Your task to perform on an android device: snooze an email in the gmail app Image 0: 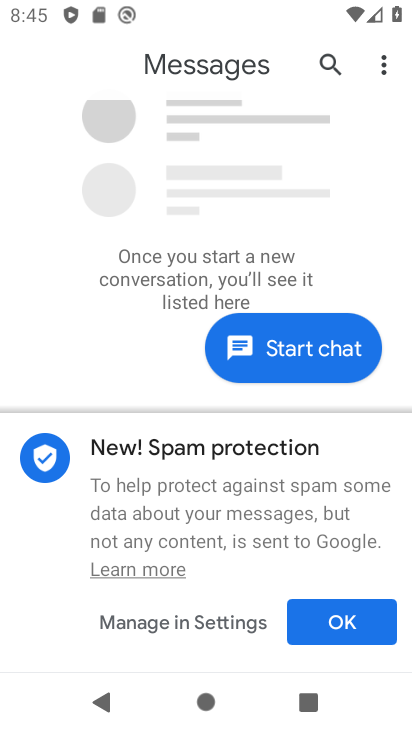
Step 0: press home button
Your task to perform on an android device: snooze an email in the gmail app Image 1: 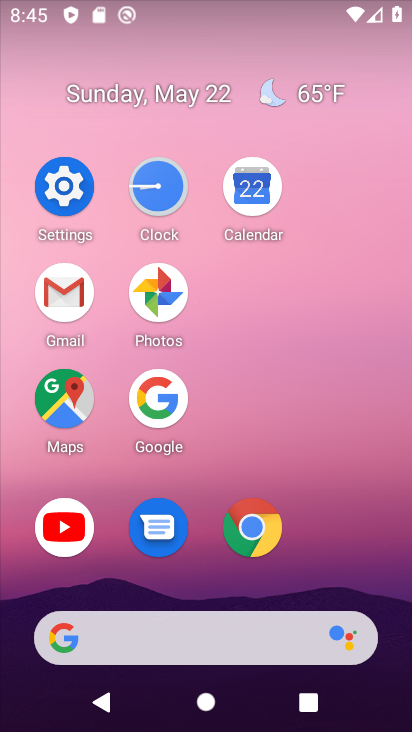
Step 1: click (80, 301)
Your task to perform on an android device: snooze an email in the gmail app Image 2: 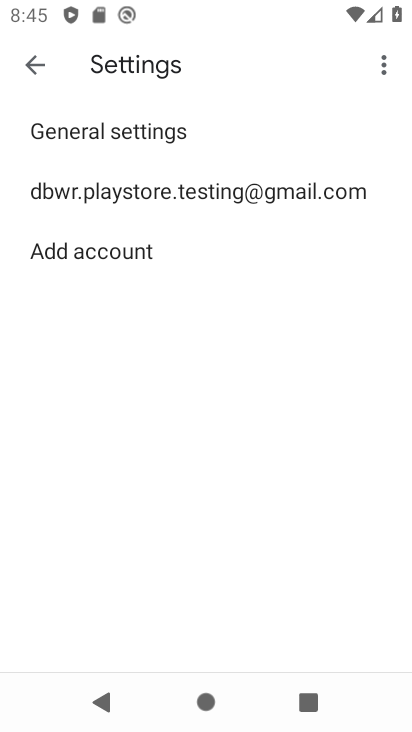
Step 2: click (47, 68)
Your task to perform on an android device: snooze an email in the gmail app Image 3: 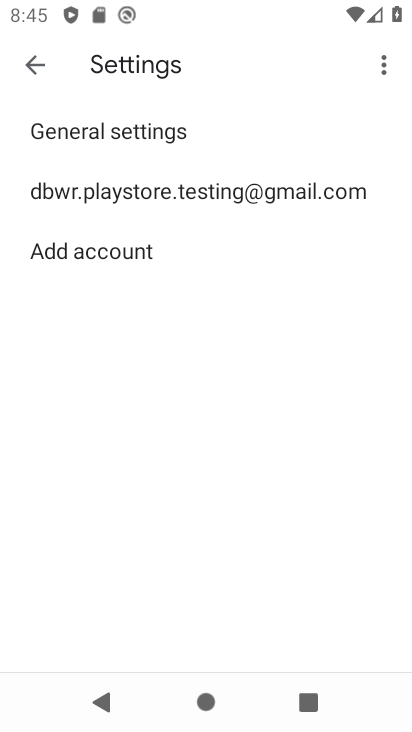
Step 3: click (37, 63)
Your task to perform on an android device: snooze an email in the gmail app Image 4: 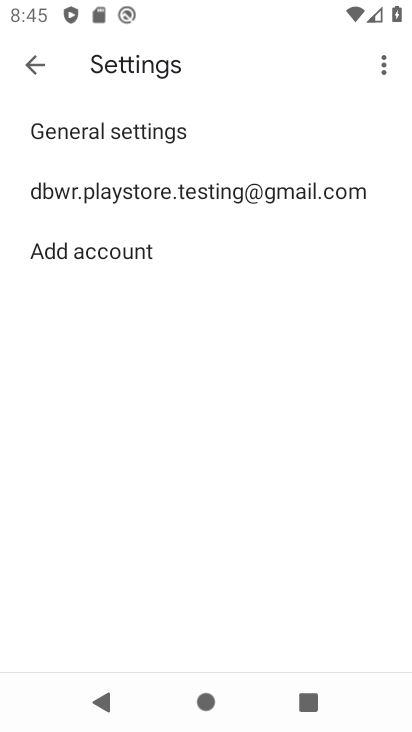
Step 4: click (35, 80)
Your task to perform on an android device: snooze an email in the gmail app Image 5: 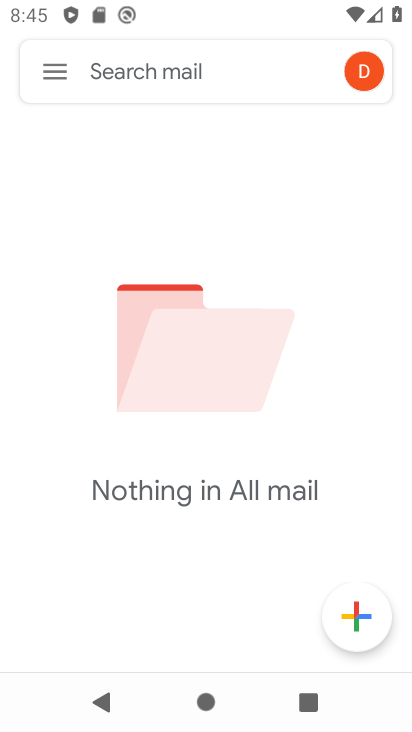
Step 5: click (35, 80)
Your task to perform on an android device: snooze an email in the gmail app Image 6: 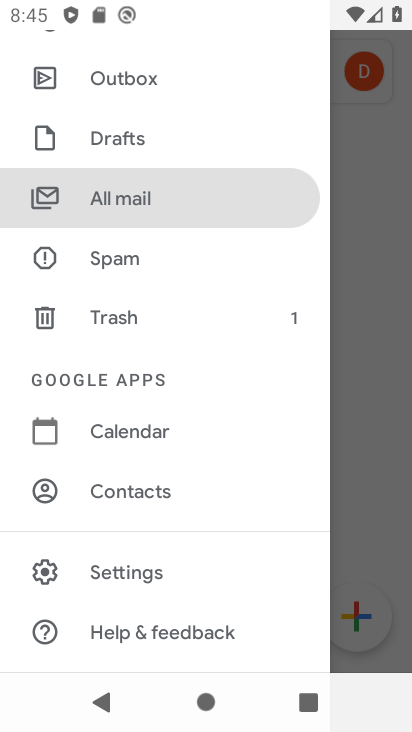
Step 6: click (147, 202)
Your task to perform on an android device: snooze an email in the gmail app Image 7: 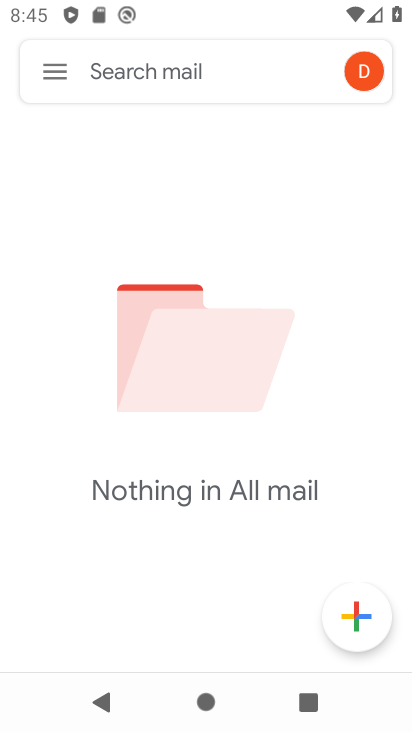
Step 7: task complete